Your task to perform on an android device: Go to ESPN.com Image 0: 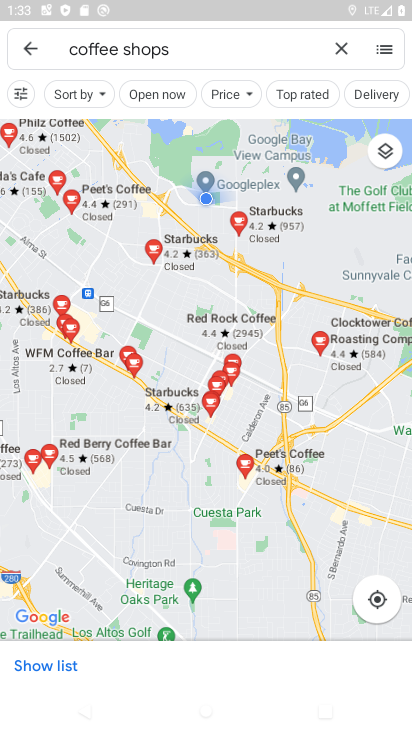
Step 0: press home button
Your task to perform on an android device: Go to ESPN.com Image 1: 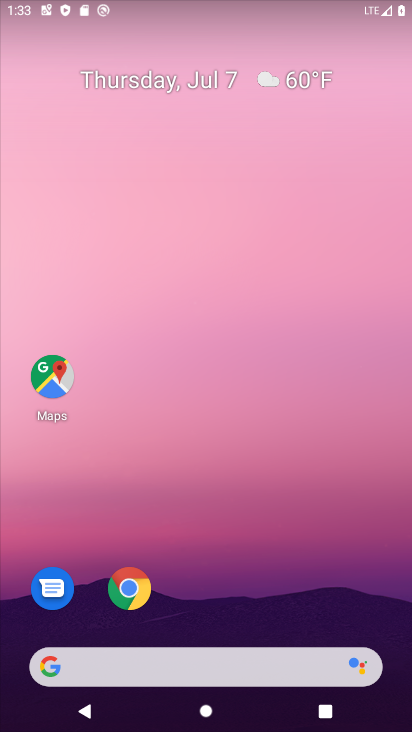
Step 1: drag from (258, 574) to (313, 109)
Your task to perform on an android device: Go to ESPN.com Image 2: 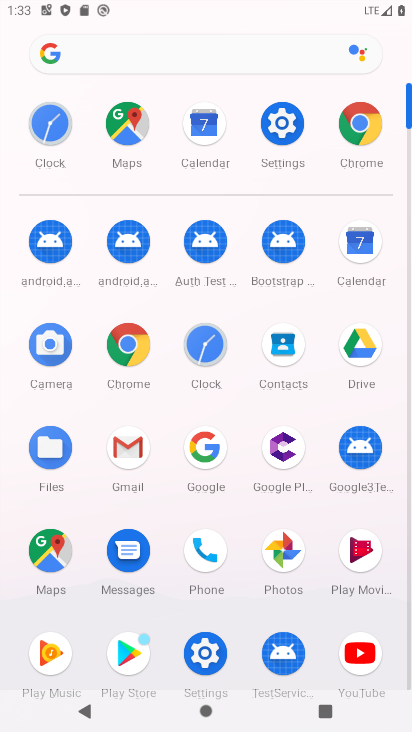
Step 2: click (142, 347)
Your task to perform on an android device: Go to ESPN.com Image 3: 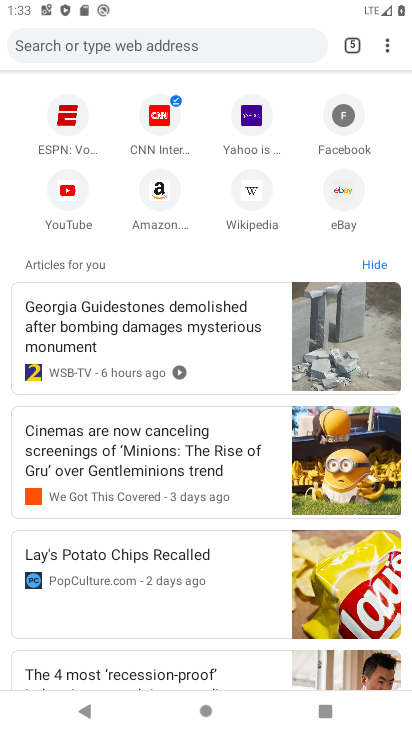
Step 3: click (70, 112)
Your task to perform on an android device: Go to ESPN.com Image 4: 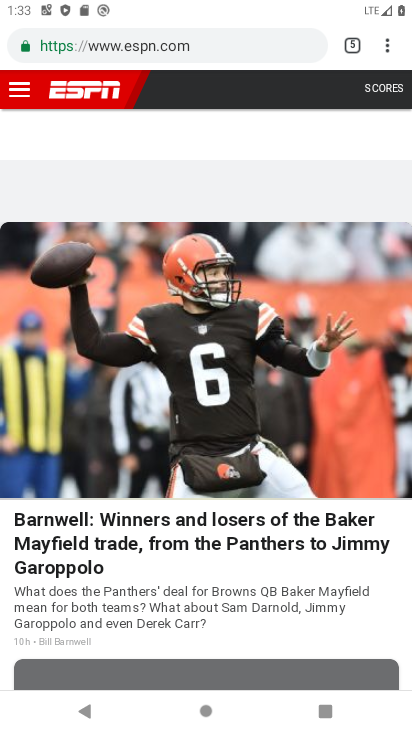
Step 4: task complete